Your task to perform on an android device: toggle airplane mode Image 0: 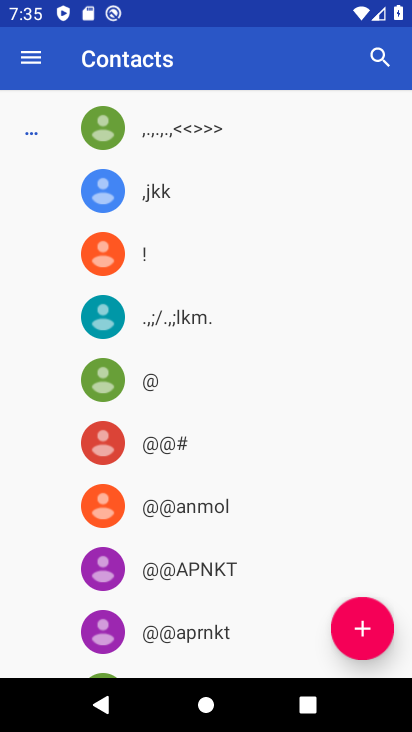
Step 0: press back button
Your task to perform on an android device: toggle airplane mode Image 1: 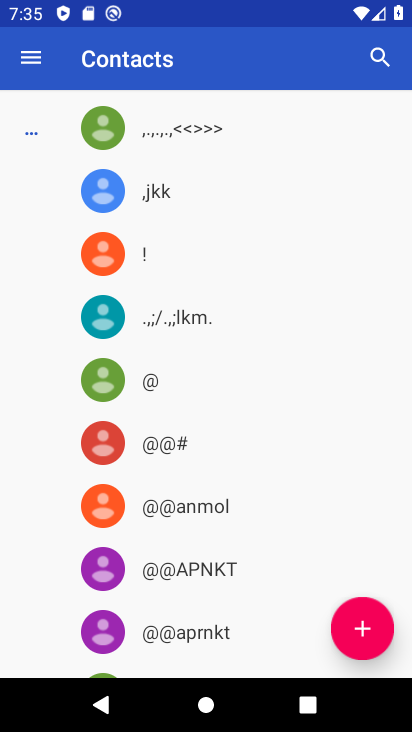
Step 1: press back button
Your task to perform on an android device: toggle airplane mode Image 2: 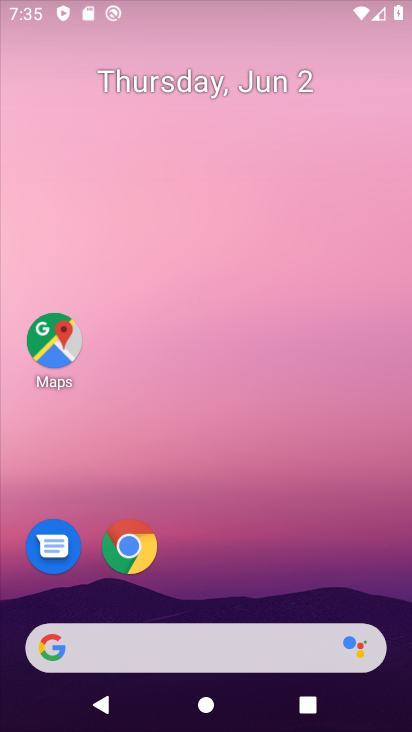
Step 2: press home button
Your task to perform on an android device: toggle airplane mode Image 3: 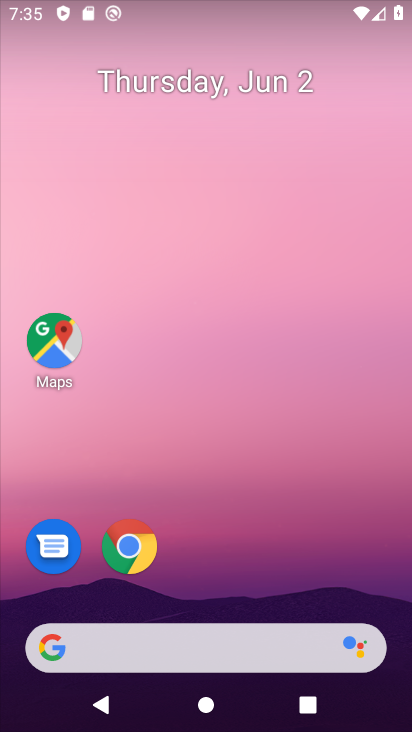
Step 3: press home button
Your task to perform on an android device: toggle airplane mode Image 4: 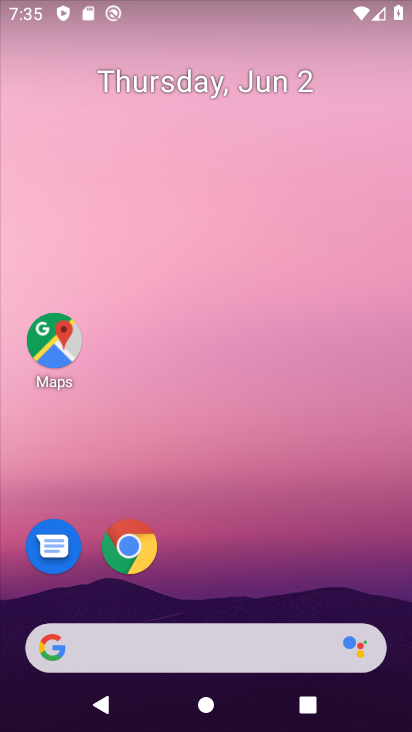
Step 4: drag from (280, 691) to (173, 72)
Your task to perform on an android device: toggle airplane mode Image 5: 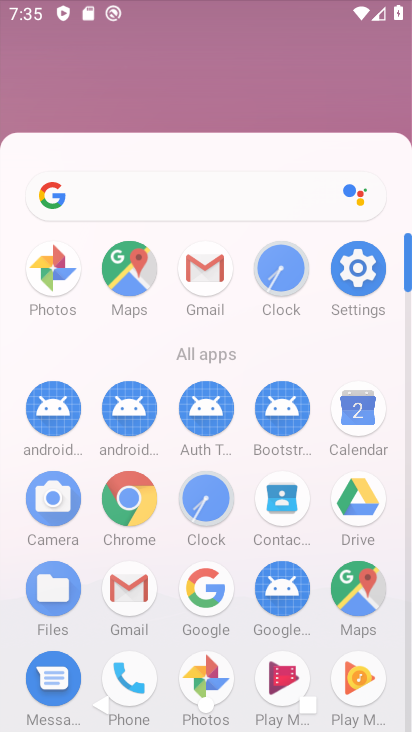
Step 5: drag from (231, 625) to (145, 92)
Your task to perform on an android device: toggle airplane mode Image 6: 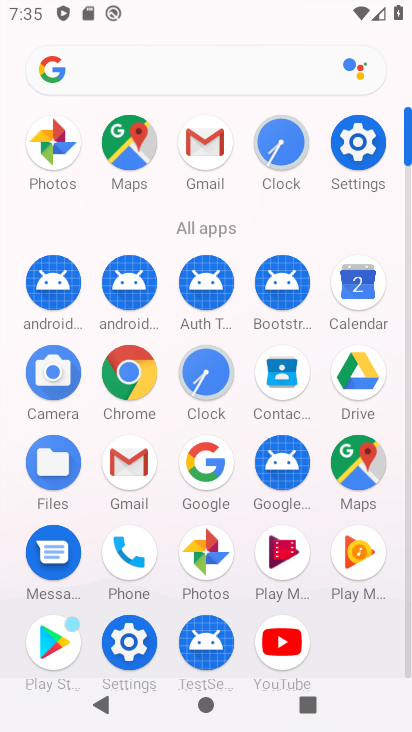
Step 6: click (355, 140)
Your task to perform on an android device: toggle airplane mode Image 7: 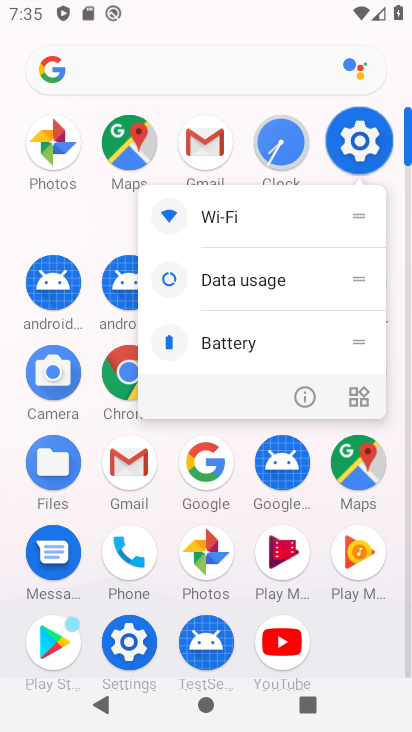
Step 7: click (356, 138)
Your task to perform on an android device: toggle airplane mode Image 8: 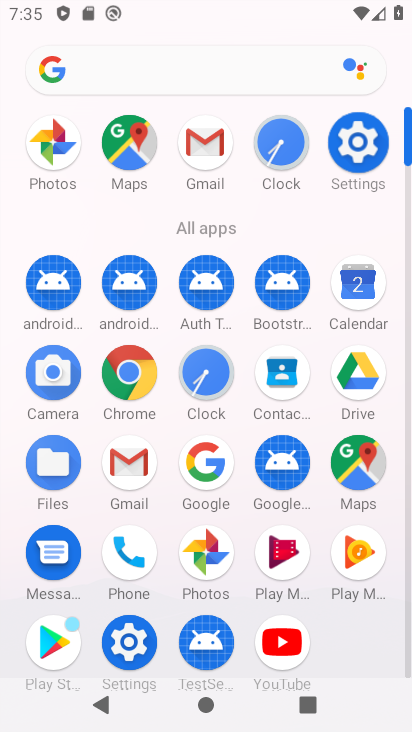
Step 8: click (356, 138)
Your task to perform on an android device: toggle airplane mode Image 9: 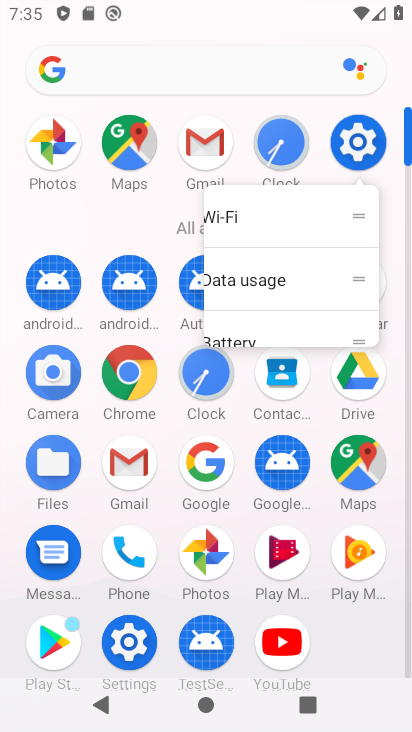
Step 9: click (356, 138)
Your task to perform on an android device: toggle airplane mode Image 10: 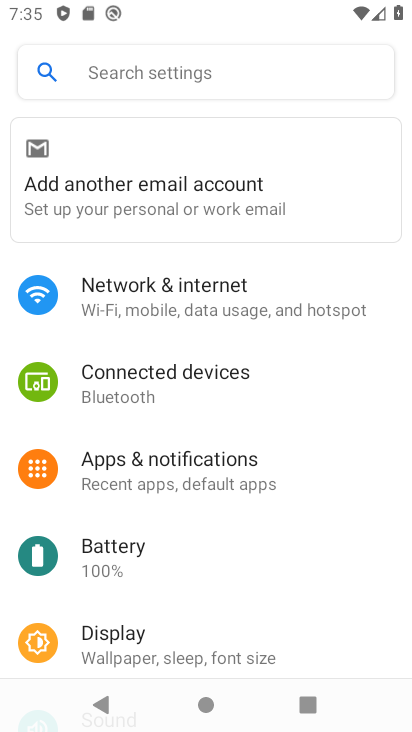
Step 10: click (184, 308)
Your task to perform on an android device: toggle airplane mode Image 11: 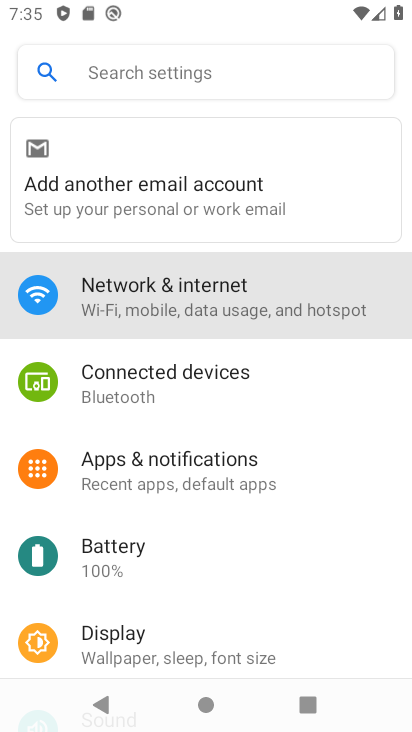
Step 11: click (184, 308)
Your task to perform on an android device: toggle airplane mode Image 12: 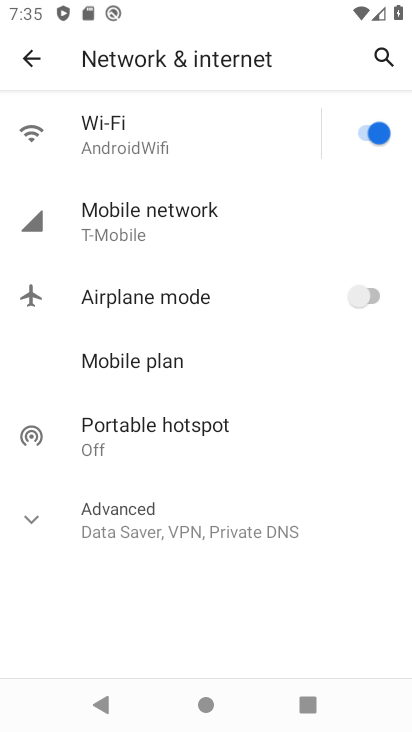
Step 12: click (202, 292)
Your task to perform on an android device: toggle airplane mode Image 13: 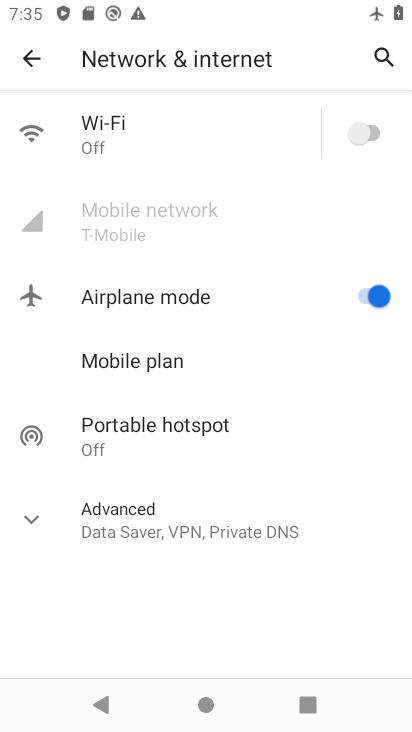
Step 13: task complete